Your task to perform on an android device: See recent photos Image 0: 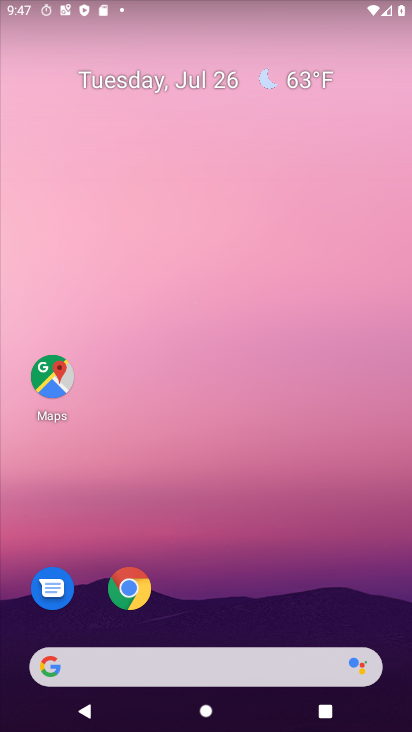
Step 0: drag from (227, 612) to (189, 44)
Your task to perform on an android device: See recent photos Image 1: 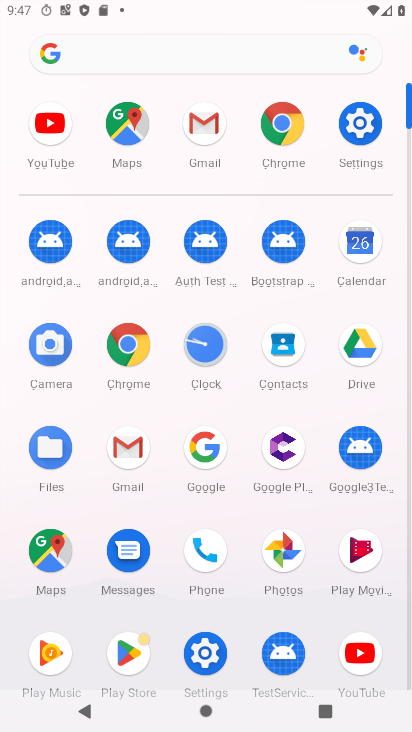
Step 1: click (279, 560)
Your task to perform on an android device: See recent photos Image 2: 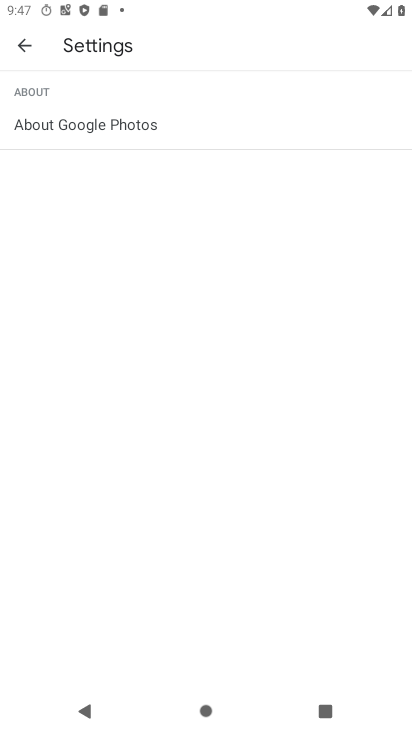
Step 2: click (21, 48)
Your task to perform on an android device: See recent photos Image 3: 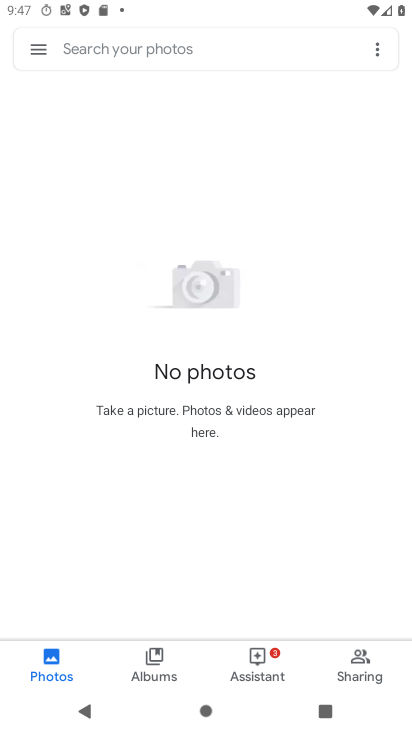
Step 3: task complete